Your task to perform on an android device: How big is a dinosaur? Image 0: 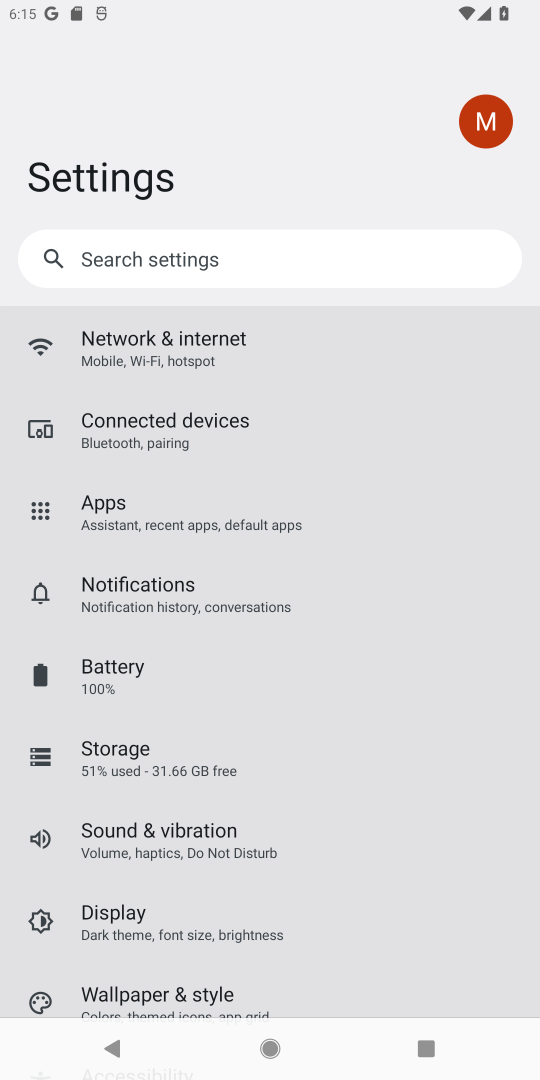
Step 0: task complete